Your task to perform on an android device: Go to Reddit.com Image 0: 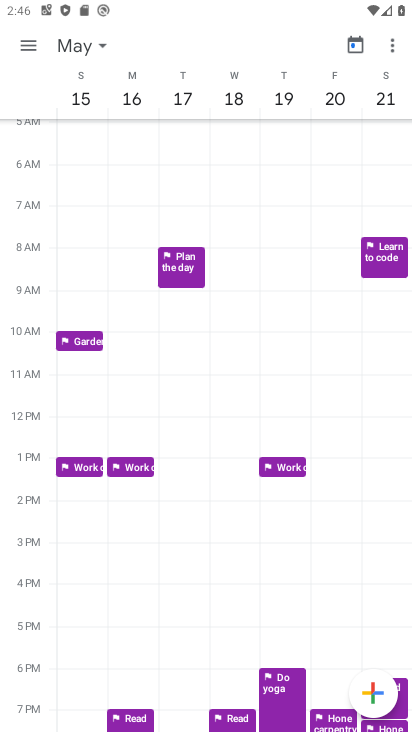
Step 0: press home button
Your task to perform on an android device: Go to Reddit.com Image 1: 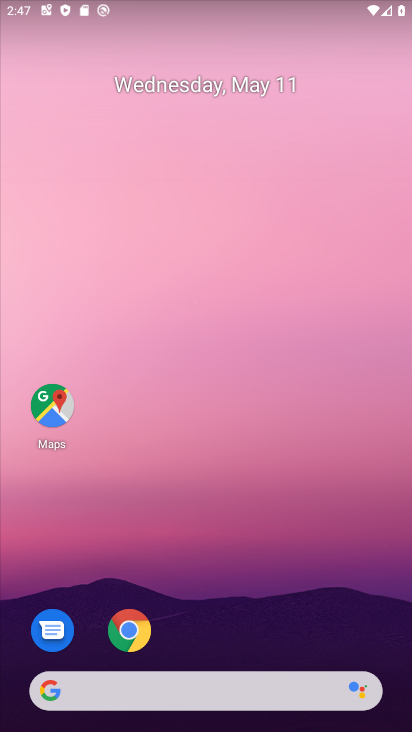
Step 1: click (134, 634)
Your task to perform on an android device: Go to Reddit.com Image 2: 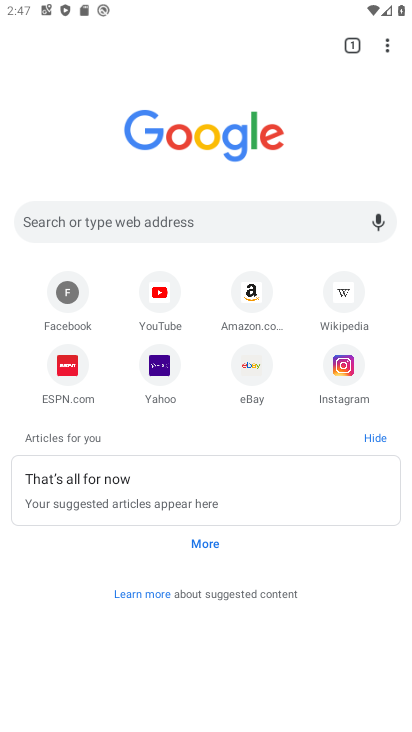
Step 2: click (99, 221)
Your task to perform on an android device: Go to Reddit.com Image 3: 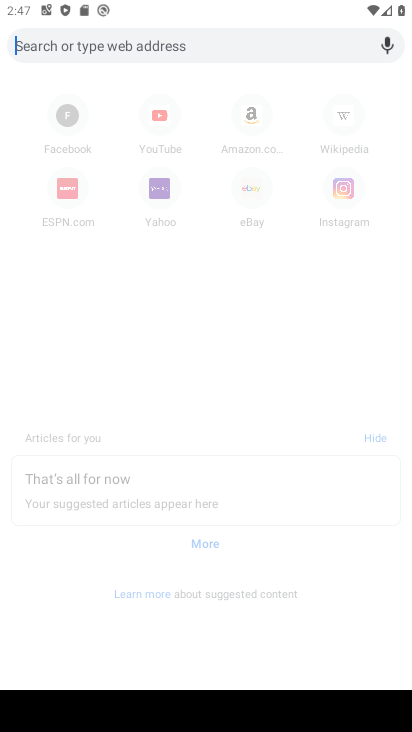
Step 3: type "reddit.com"
Your task to perform on an android device: Go to Reddit.com Image 4: 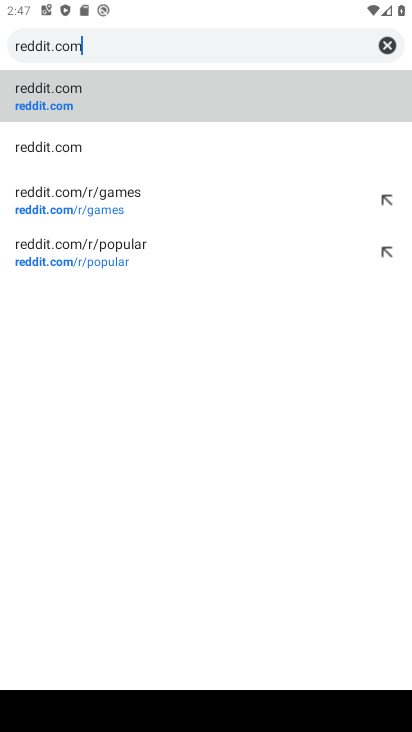
Step 4: click (33, 109)
Your task to perform on an android device: Go to Reddit.com Image 5: 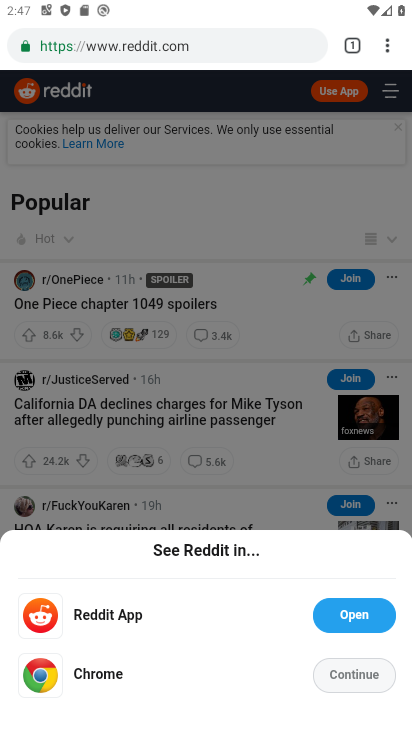
Step 5: task complete